Your task to perform on an android device: Search for pizza restaurants on Maps Image 0: 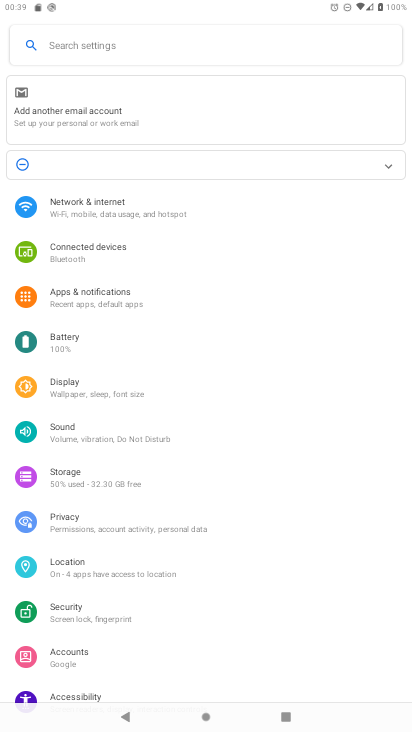
Step 0: press home button
Your task to perform on an android device: Search for pizza restaurants on Maps Image 1: 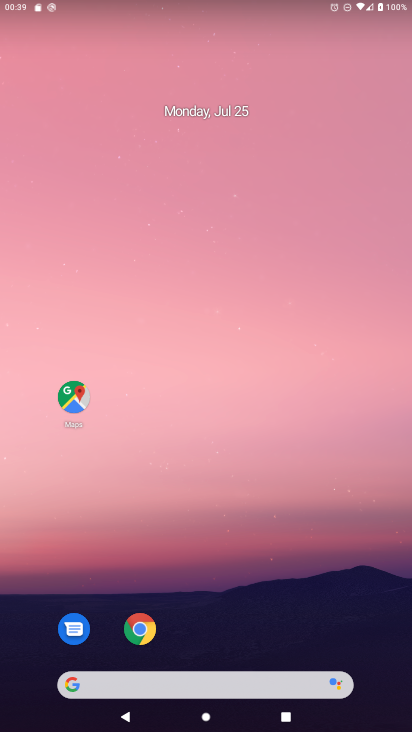
Step 1: drag from (226, 631) to (226, 86)
Your task to perform on an android device: Search for pizza restaurants on Maps Image 2: 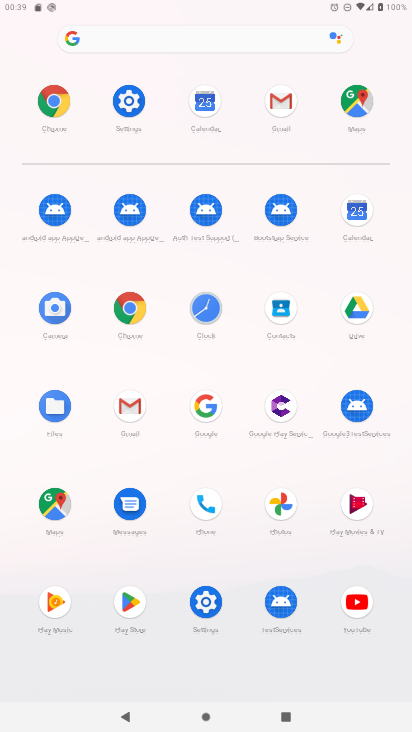
Step 2: click (59, 497)
Your task to perform on an android device: Search for pizza restaurants on Maps Image 3: 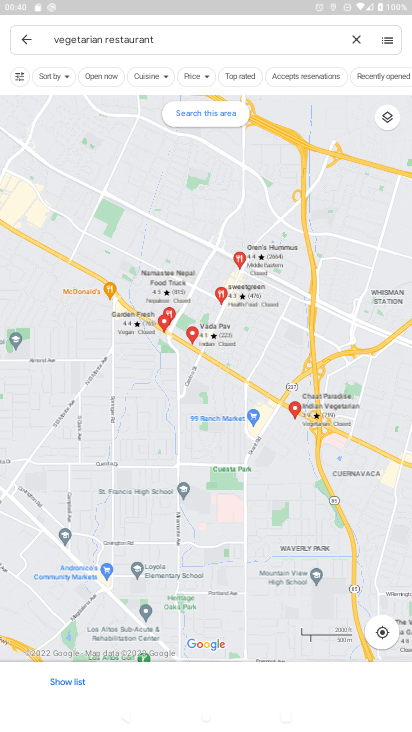
Step 3: click (354, 37)
Your task to perform on an android device: Search for pizza restaurants on Maps Image 4: 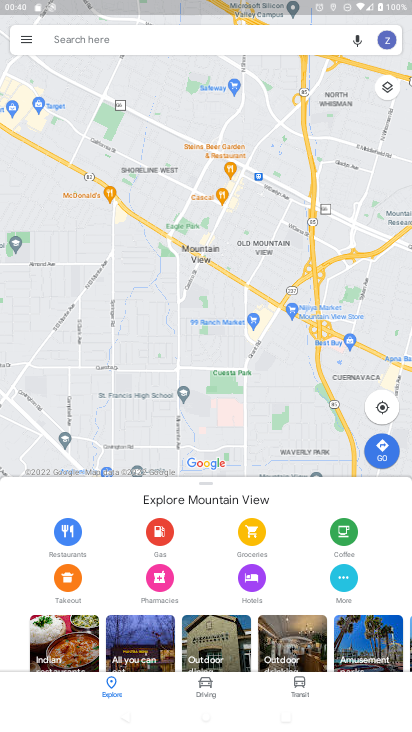
Step 4: click (98, 32)
Your task to perform on an android device: Search for pizza restaurants on Maps Image 5: 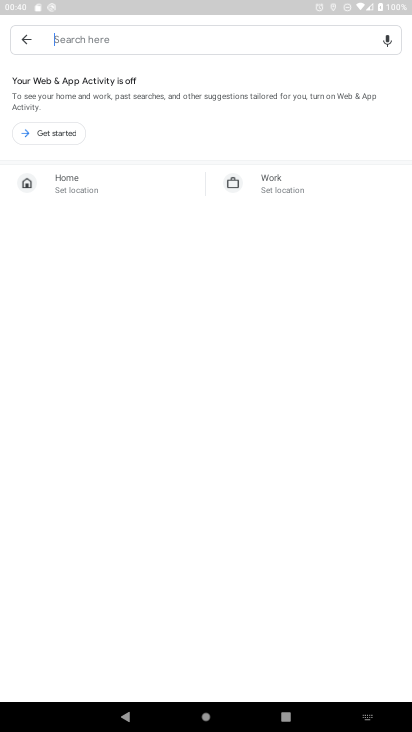
Step 5: type "pizza restaurants"
Your task to perform on an android device: Search for pizza restaurants on Maps Image 6: 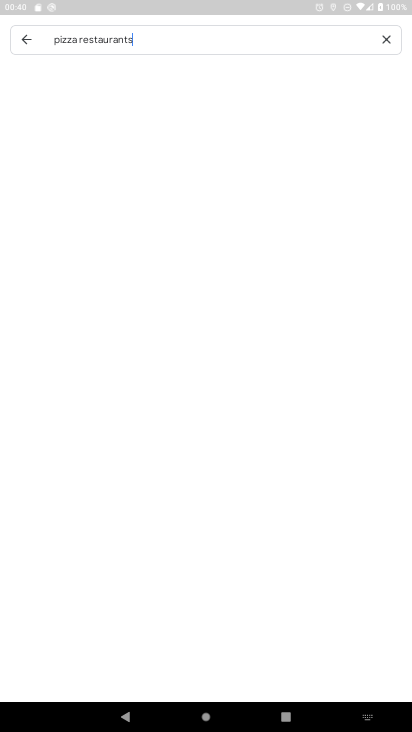
Step 6: type ""
Your task to perform on an android device: Search for pizza restaurants on Maps Image 7: 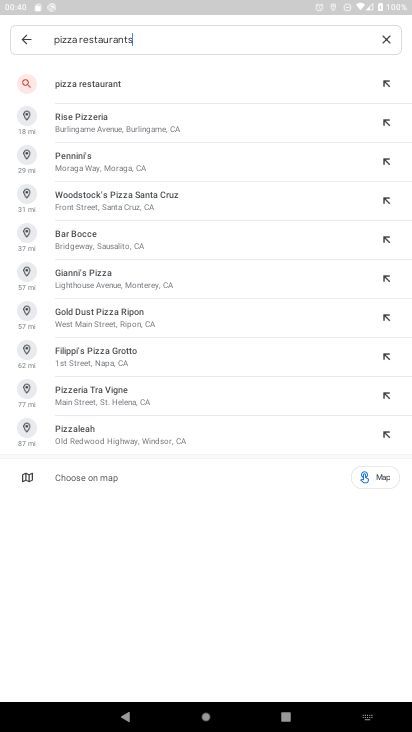
Step 7: click (119, 85)
Your task to perform on an android device: Search for pizza restaurants on Maps Image 8: 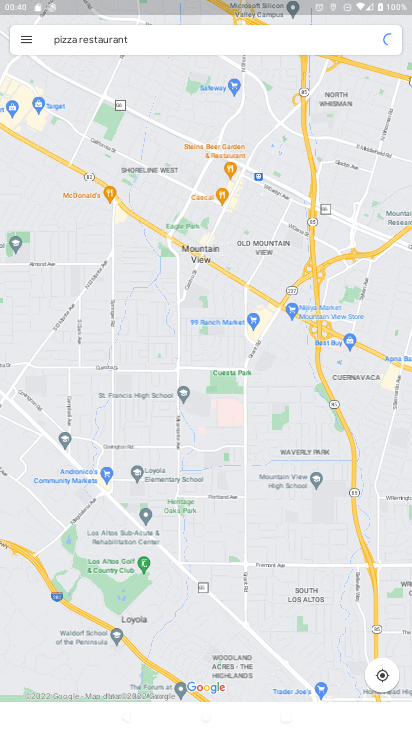
Step 8: task complete